Your task to perform on an android device: Open internet settings Image 0: 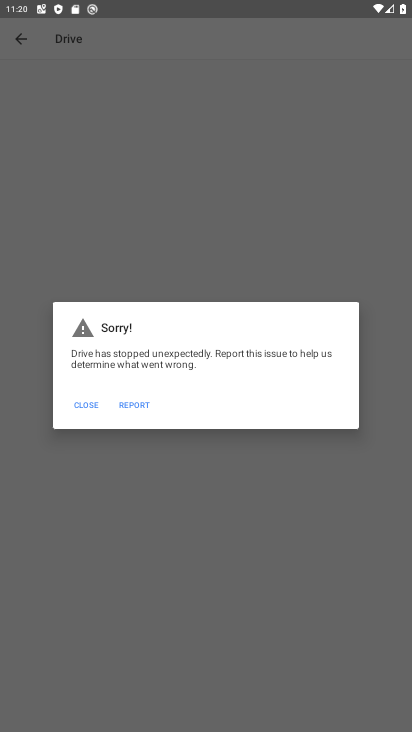
Step 0: press home button
Your task to perform on an android device: Open internet settings Image 1: 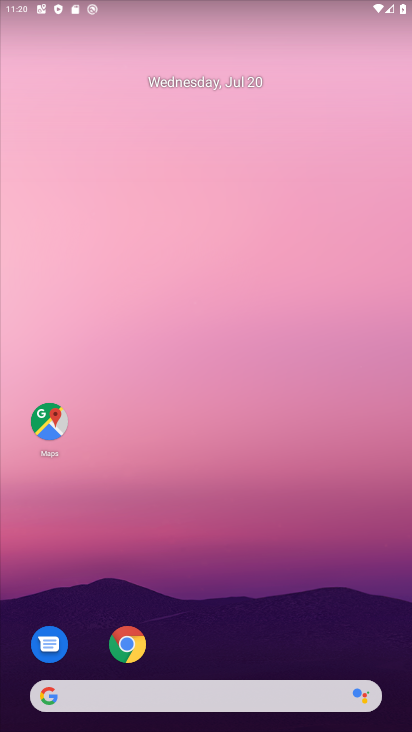
Step 1: drag from (206, 575) to (206, 168)
Your task to perform on an android device: Open internet settings Image 2: 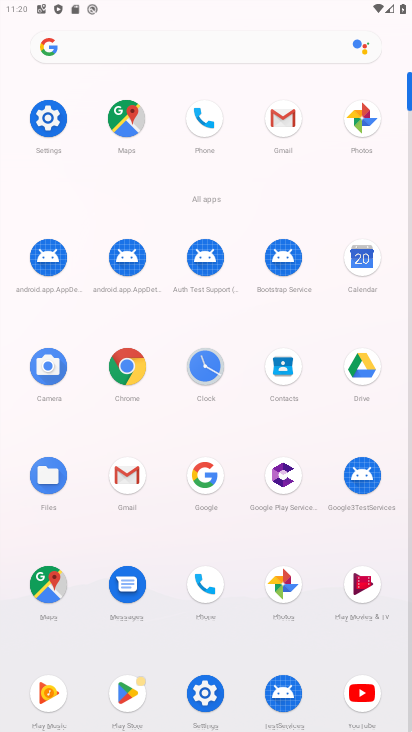
Step 2: click (44, 141)
Your task to perform on an android device: Open internet settings Image 3: 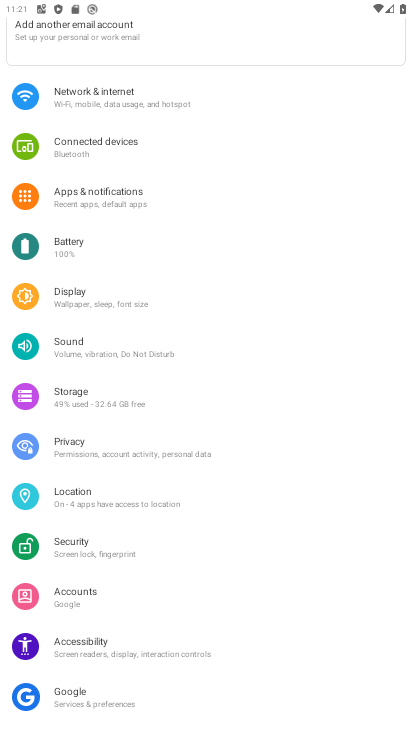
Step 3: click (102, 99)
Your task to perform on an android device: Open internet settings Image 4: 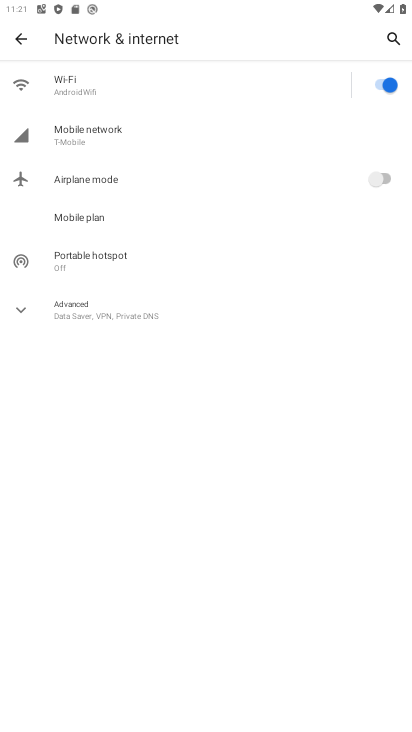
Step 4: click (72, 309)
Your task to perform on an android device: Open internet settings Image 5: 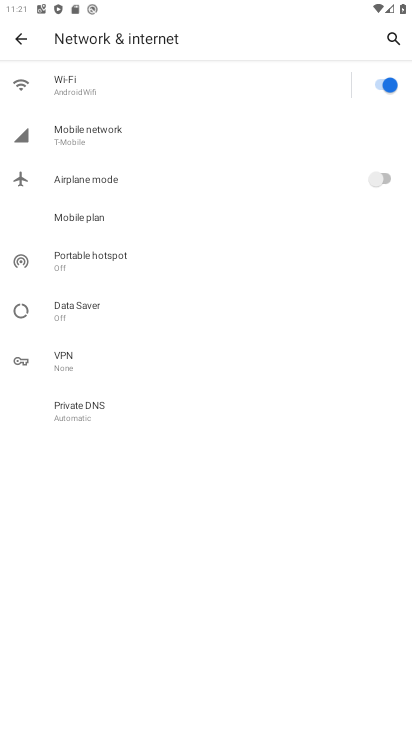
Step 5: task complete